Your task to perform on an android device: toggle priority inbox in the gmail app Image 0: 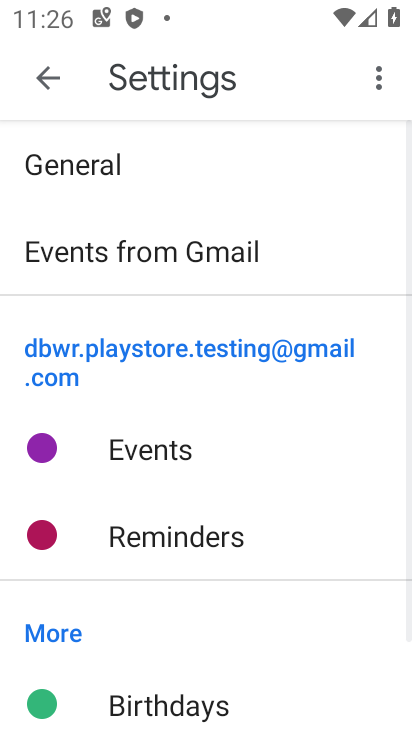
Step 0: press home button
Your task to perform on an android device: toggle priority inbox in the gmail app Image 1: 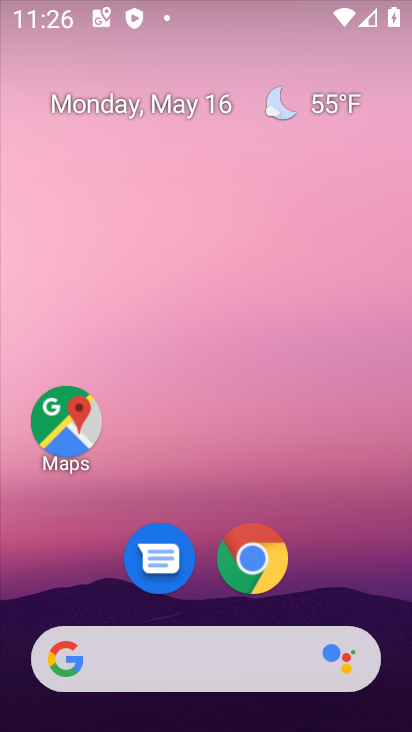
Step 1: drag from (200, 299) to (194, 121)
Your task to perform on an android device: toggle priority inbox in the gmail app Image 2: 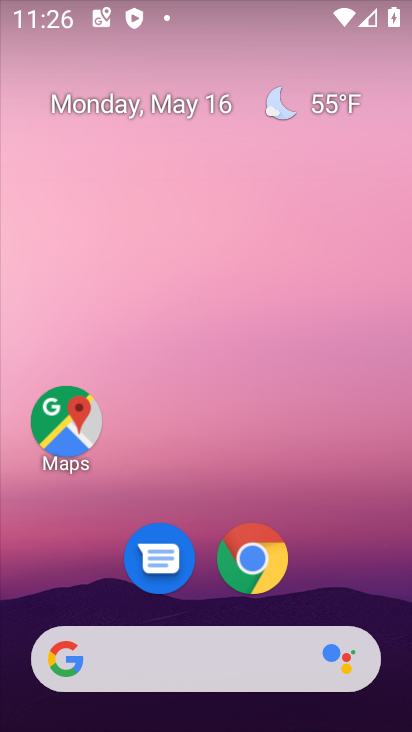
Step 2: drag from (203, 499) to (226, 56)
Your task to perform on an android device: toggle priority inbox in the gmail app Image 3: 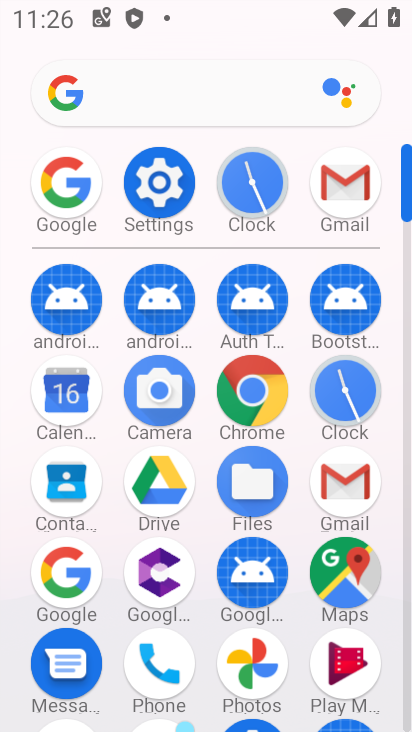
Step 3: click (343, 186)
Your task to perform on an android device: toggle priority inbox in the gmail app Image 4: 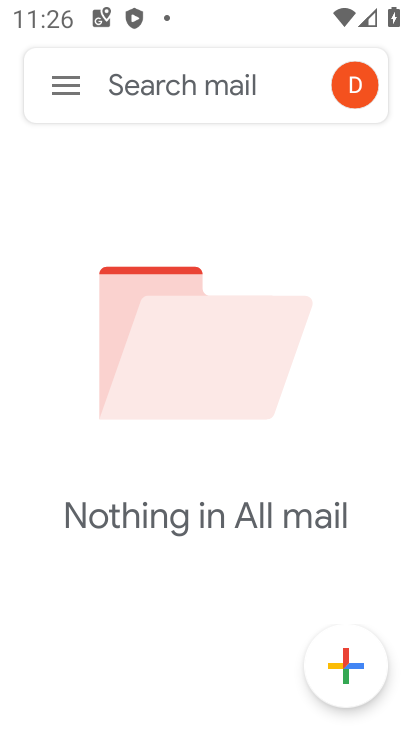
Step 4: click (62, 87)
Your task to perform on an android device: toggle priority inbox in the gmail app Image 5: 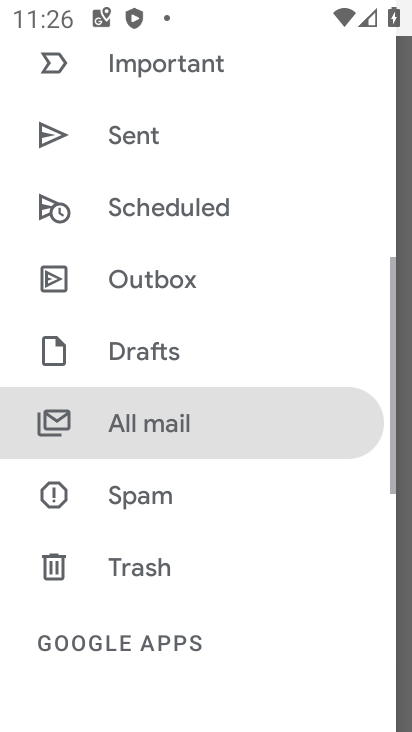
Step 5: drag from (158, 578) to (173, 172)
Your task to perform on an android device: toggle priority inbox in the gmail app Image 6: 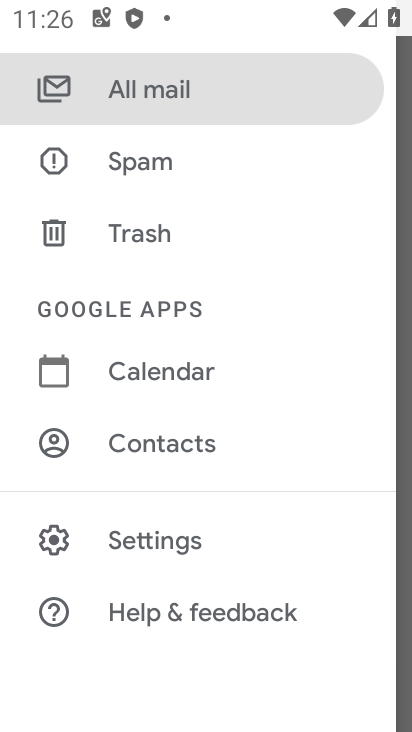
Step 6: click (166, 544)
Your task to perform on an android device: toggle priority inbox in the gmail app Image 7: 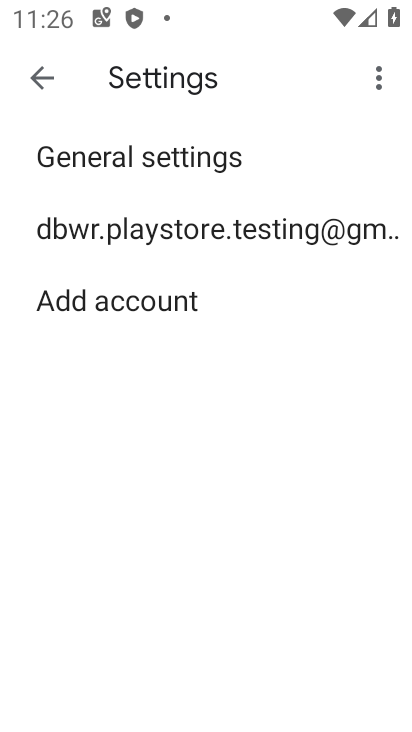
Step 7: click (176, 224)
Your task to perform on an android device: toggle priority inbox in the gmail app Image 8: 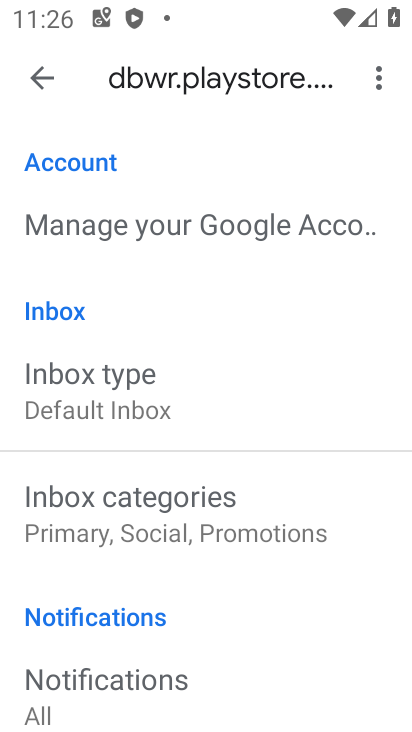
Step 8: click (131, 398)
Your task to perform on an android device: toggle priority inbox in the gmail app Image 9: 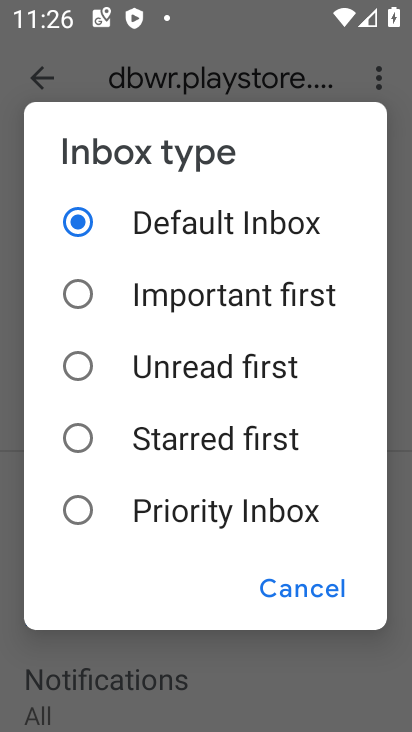
Step 9: click (81, 504)
Your task to perform on an android device: toggle priority inbox in the gmail app Image 10: 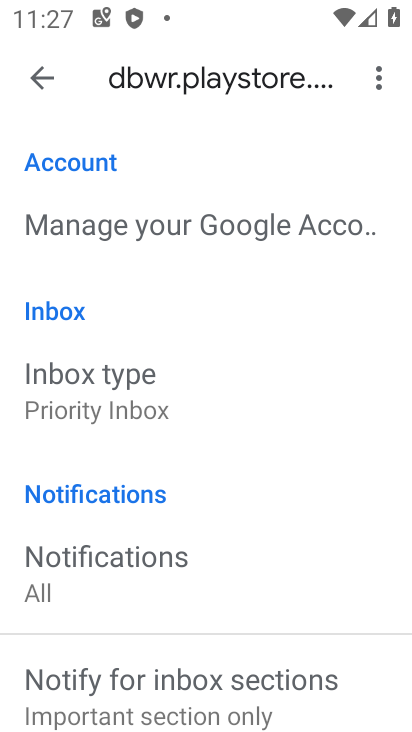
Step 10: task complete